Your task to perform on an android device: turn off translation in the chrome app Image 0: 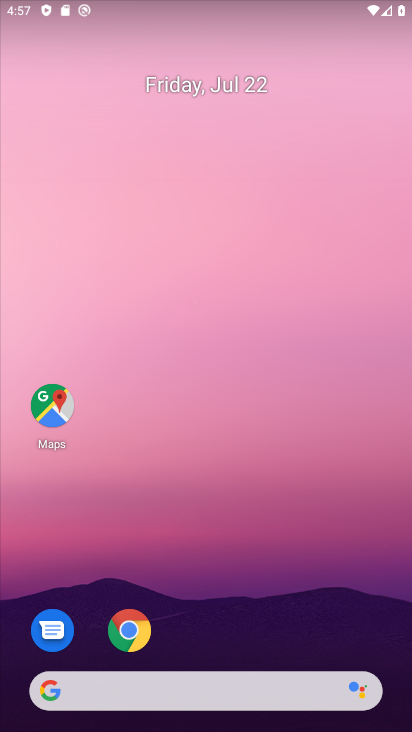
Step 0: click (125, 636)
Your task to perform on an android device: turn off translation in the chrome app Image 1: 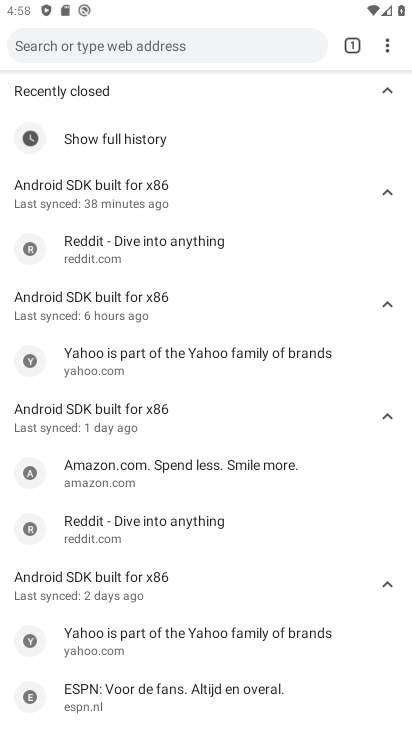
Step 1: click (383, 43)
Your task to perform on an android device: turn off translation in the chrome app Image 2: 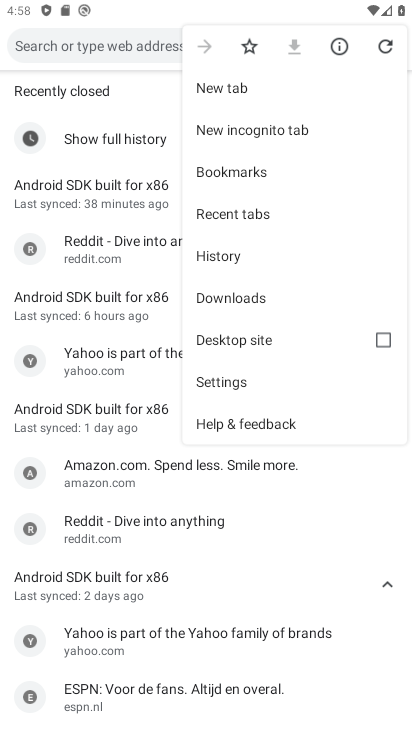
Step 2: click (235, 386)
Your task to perform on an android device: turn off translation in the chrome app Image 3: 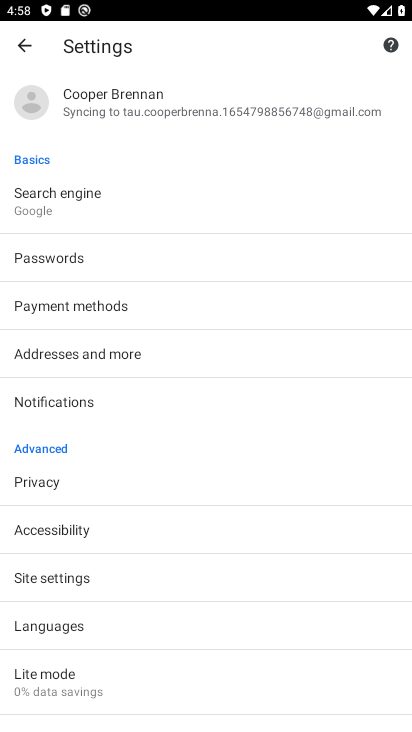
Step 3: click (44, 636)
Your task to perform on an android device: turn off translation in the chrome app Image 4: 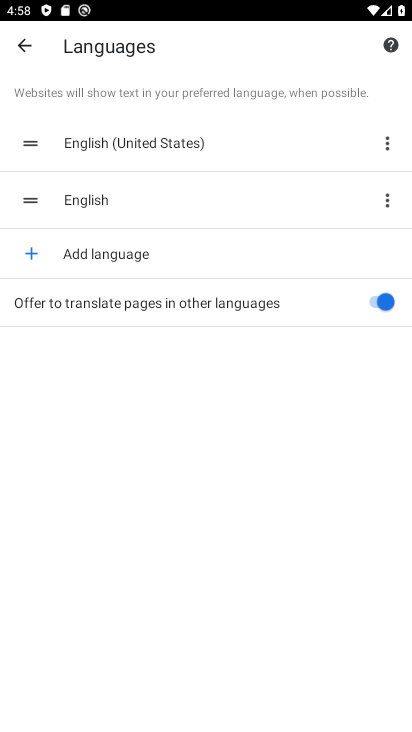
Step 4: click (361, 306)
Your task to perform on an android device: turn off translation in the chrome app Image 5: 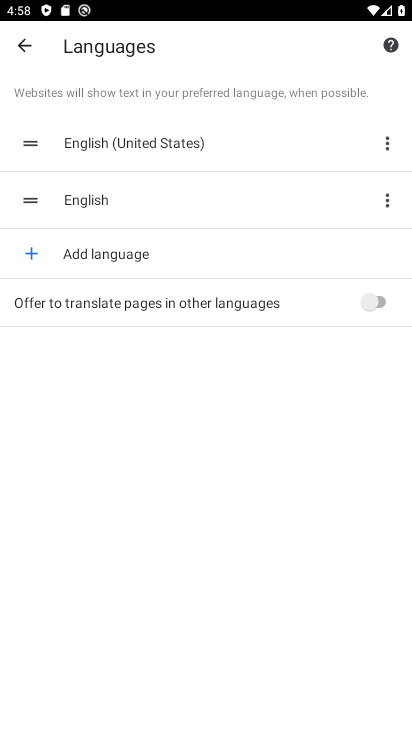
Step 5: task complete